Your task to perform on an android device: Search for pizza restaurants on Maps Image 0: 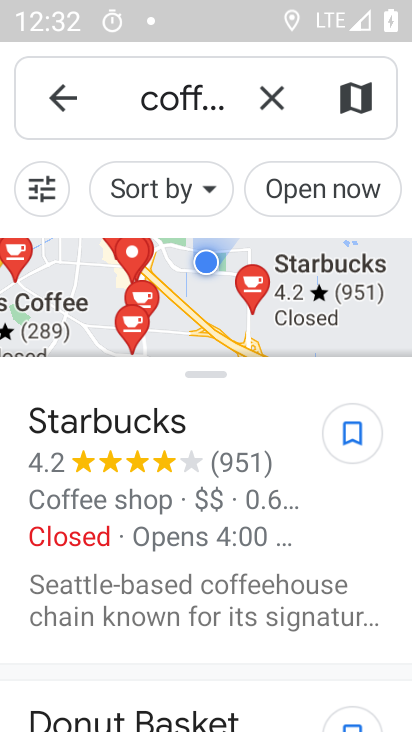
Step 0: click (253, 96)
Your task to perform on an android device: Search for pizza restaurants on Maps Image 1: 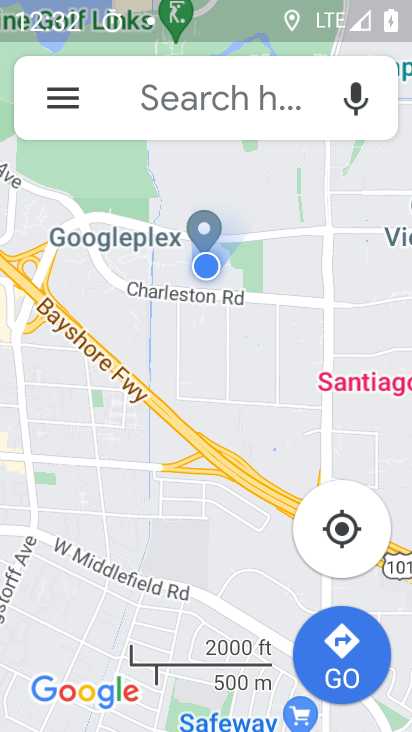
Step 1: click (250, 101)
Your task to perform on an android device: Search for pizza restaurants on Maps Image 2: 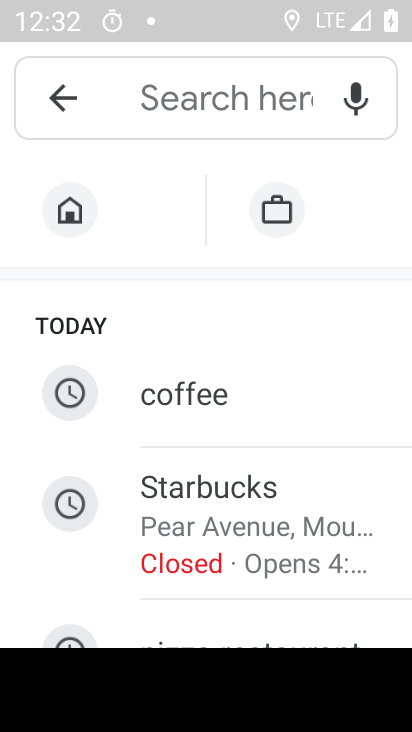
Step 2: type ";pizzaa restaurants"
Your task to perform on an android device: Search for pizza restaurants on Maps Image 3: 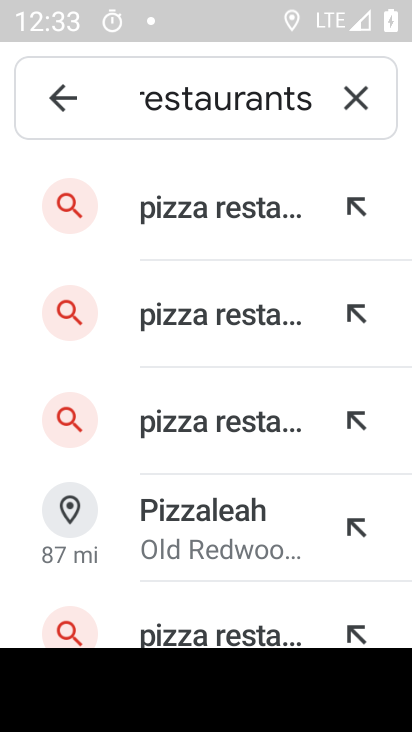
Step 3: click (295, 228)
Your task to perform on an android device: Search for pizza restaurants on Maps Image 4: 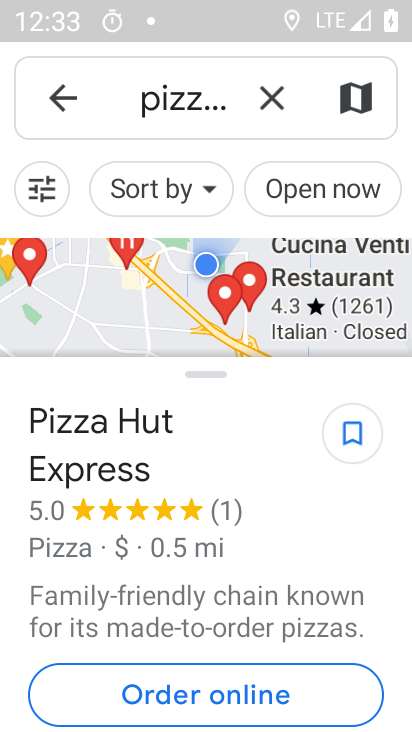
Step 4: task complete